Your task to perform on an android device: empty trash in google photos Image 0: 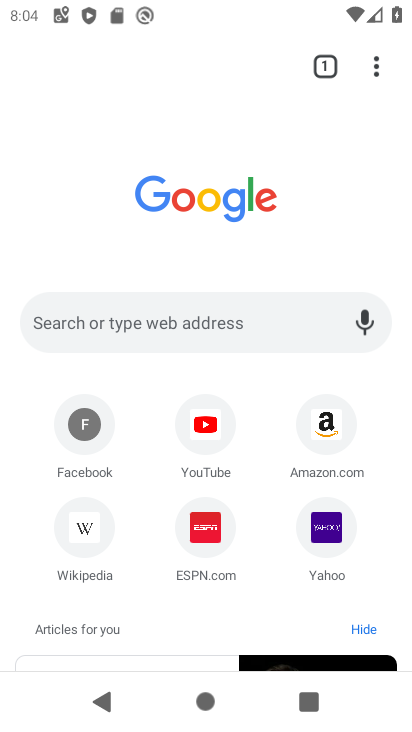
Step 0: press home button
Your task to perform on an android device: empty trash in google photos Image 1: 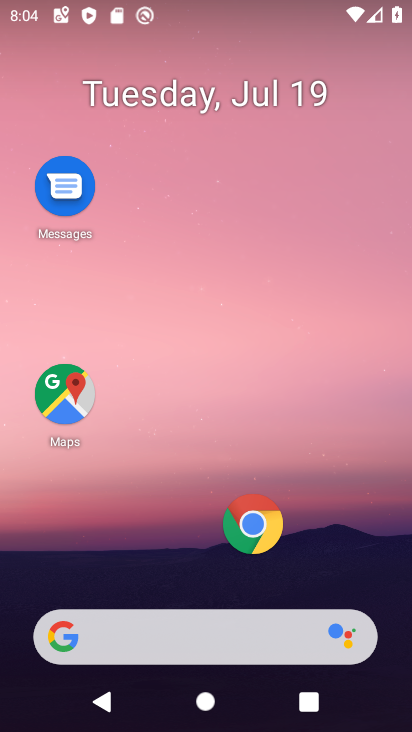
Step 1: drag from (199, 576) to (180, 74)
Your task to perform on an android device: empty trash in google photos Image 2: 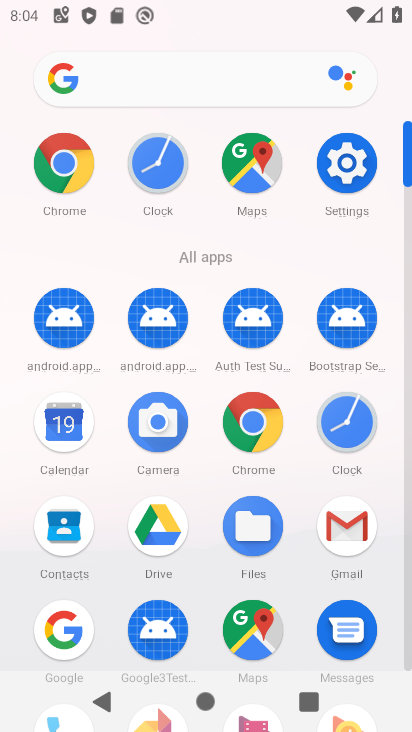
Step 2: drag from (106, 599) to (117, 324)
Your task to perform on an android device: empty trash in google photos Image 3: 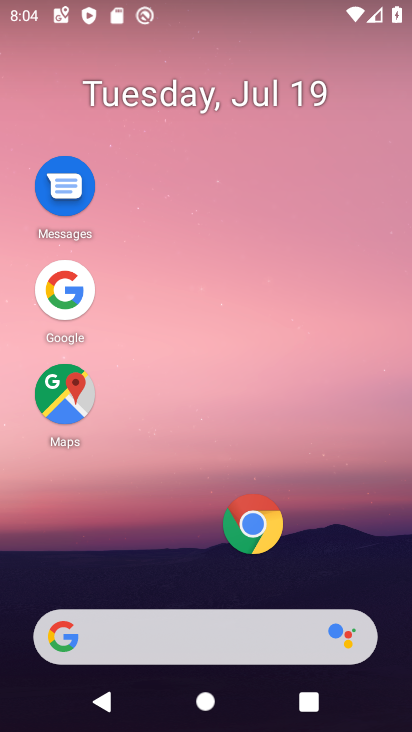
Step 3: drag from (178, 575) to (55, 0)
Your task to perform on an android device: empty trash in google photos Image 4: 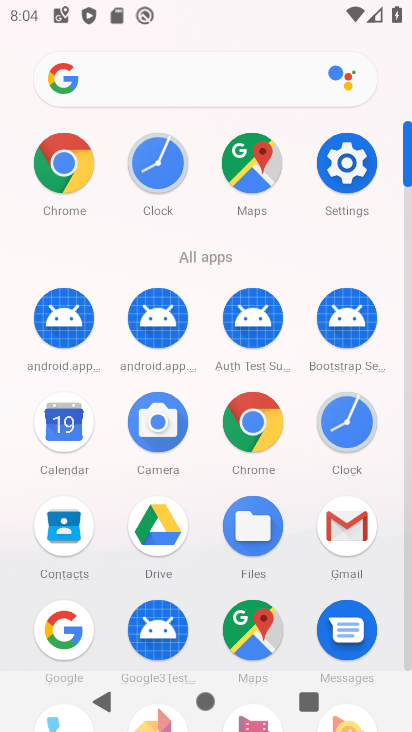
Step 4: drag from (194, 498) to (135, 54)
Your task to perform on an android device: empty trash in google photos Image 5: 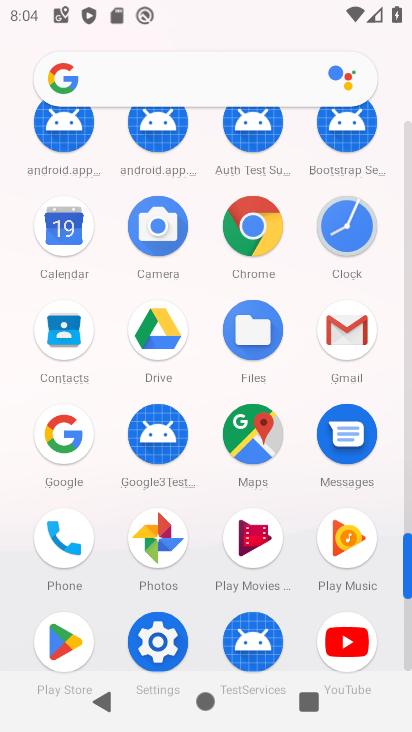
Step 5: click (155, 533)
Your task to perform on an android device: empty trash in google photos Image 6: 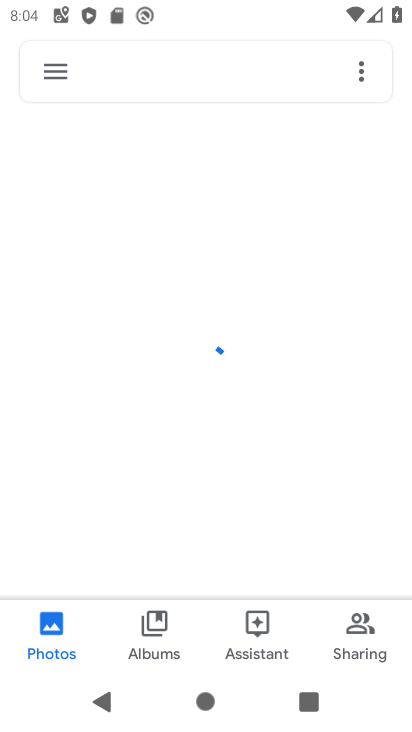
Step 6: click (43, 57)
Your task to perform on an android device: empty trash in google photos Image 7: 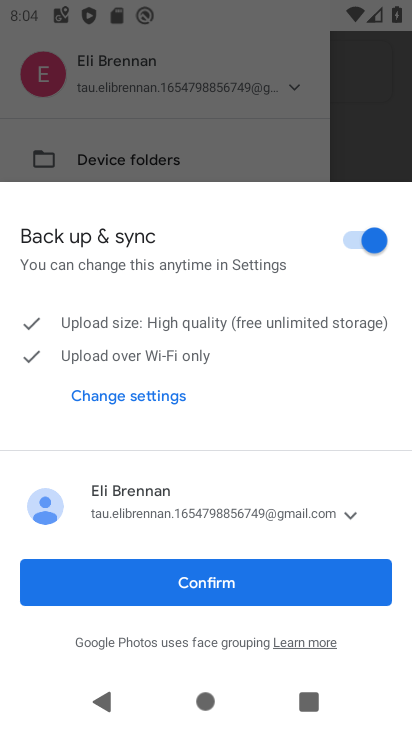
Step 7: click (188, 576)
Your task to perform on an android device: empty trash in google photos Image 8: 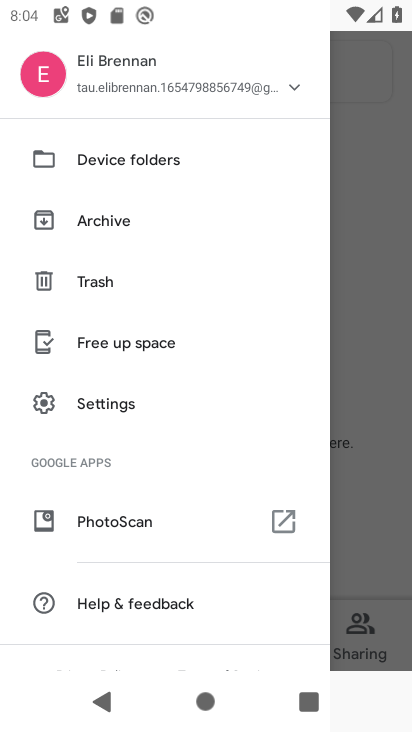
Step 8: click (95, 278)
Your task to perform on an android device: empty trash in google photos Image 9: 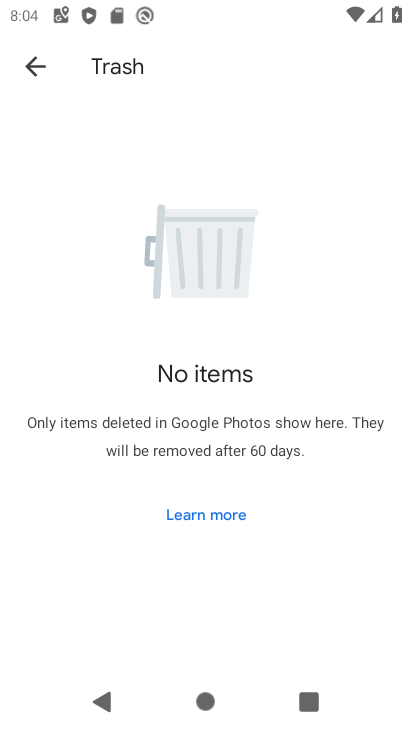
Step 9: task complete